Your task to perform on an android device: clear history in the chrome app Image 0: 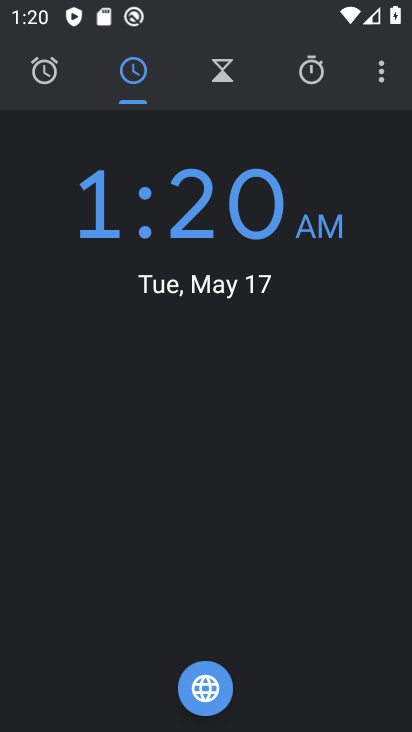
Step 0: press home button
Your task to perform on an android device: clear history in the chrome app Image 1: 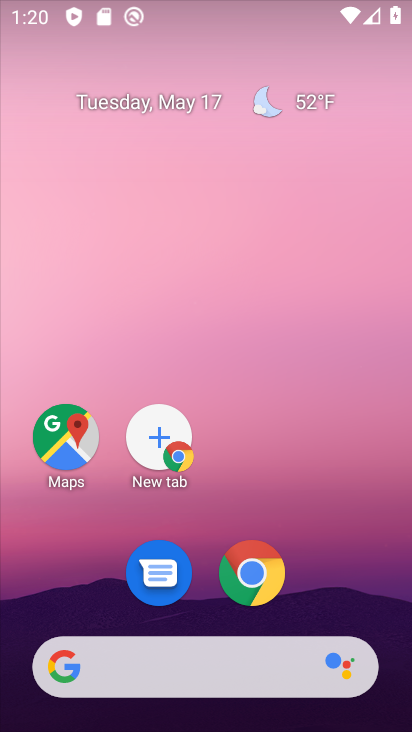
Step 1: click (255, 589)
Your task to perform on an android device: clear history in the chrome app Image 2: 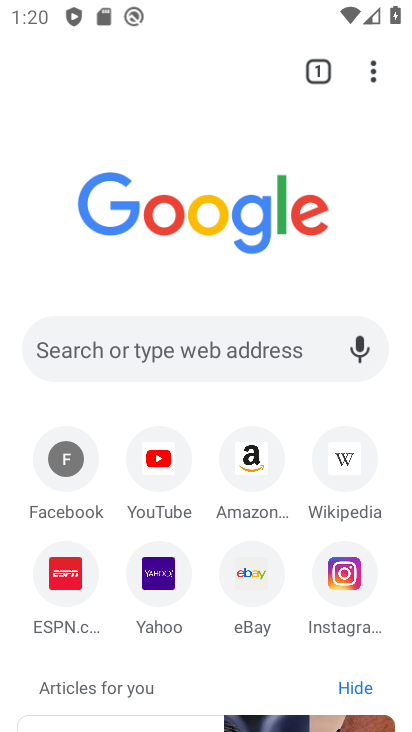
Step 2: task complete